Your task to perform on an android device: Show the shopping cart on walmart. Add macbook to the cart on walmart Image 0: 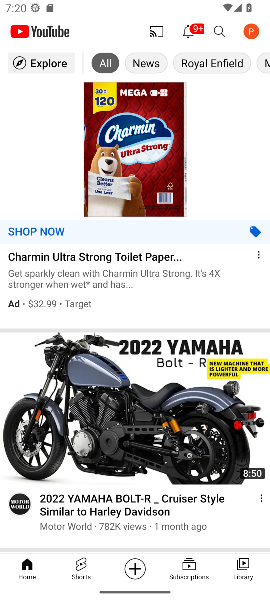
Step 0: press home button
Your task to perform on an android device: Show the shopping cart on walmart. Add macbook to the cart on walmart Image 1: 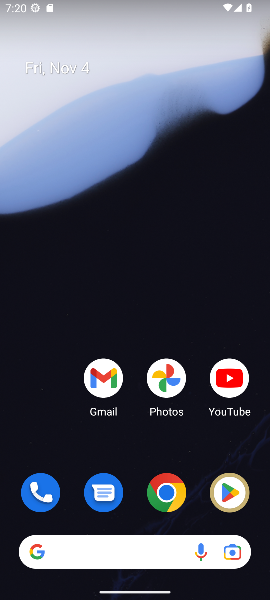
Step 1: drag from (136, 439) to (137, 57)
Your task to perform on an android device: Show the shopping cart on walmart. Add macbook to the cart on walmart Image 2: 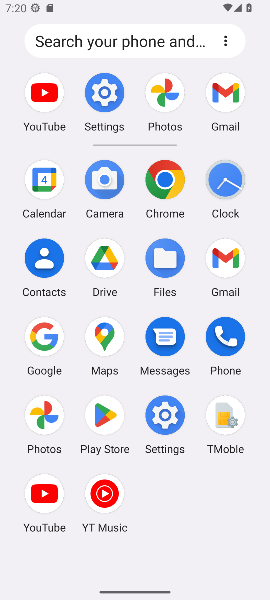
Step 2: click (162, 178)
Your task to perform on an android device: Show the shopping cart on walmart. Add macbook to the cart on walmart Image 3: 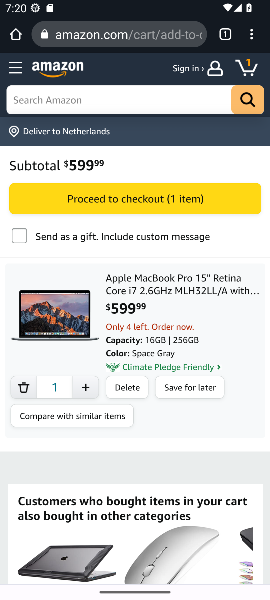
Step 3: click (136, 34)
Your task to perform on an android device: Show the shopping cart on walmart. Add macbook to the cart on walmart Image 4: 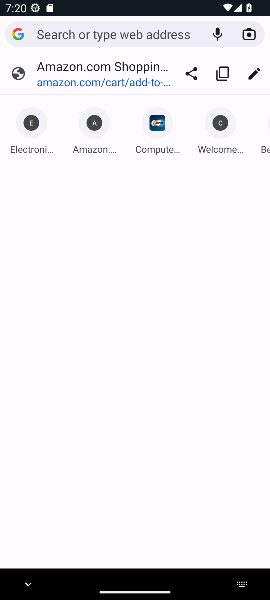
Step 4: type "walmart.com"
Your task to perform on an android device: Show the shopping cart on walmart. Add macbook to the cart on walmart Image 5: 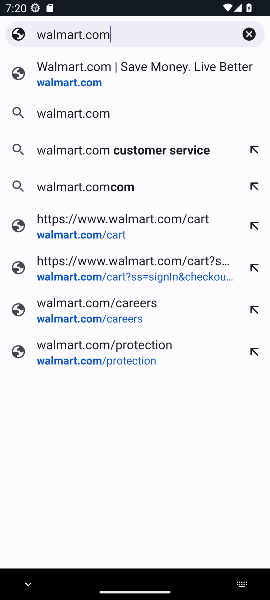
Step 5: press enter
Your task to perform on an android device: Show the shopping cart on walmart. Add macbook to the cart on walmart Image 6: 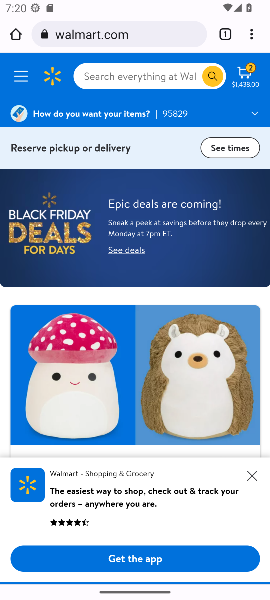
Step 6: click (248, 77)
Your task to perform on an android device: Show the shopping cart on walmart. Add macbook to the cart on walmart Image 7: 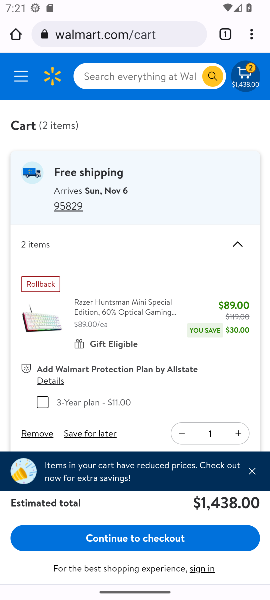
Step 7: click (32, 430)
Your task to perform on an android device: Show the shopping cart on walmart. Add macbook to the cart on walmart Image 8: 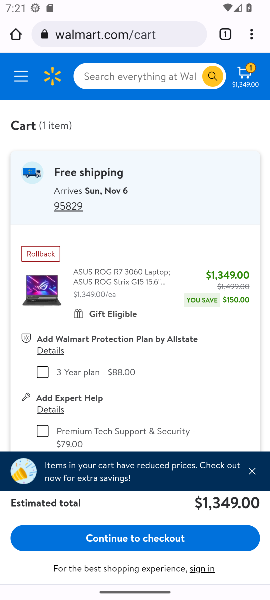
Step 8: click (144, 74)
Your task to perform on an android device: Show the shopping cart on walmart. Add macbook to the cart on walmart Image 9: 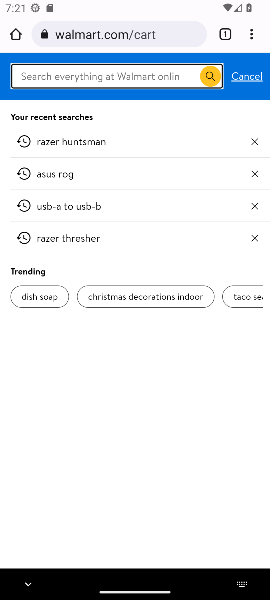
Step 9: type "macbook"
Your task to perform on an android device: Show the shopping cart on walmart. Add macbook to the cart on walmart Image 10: 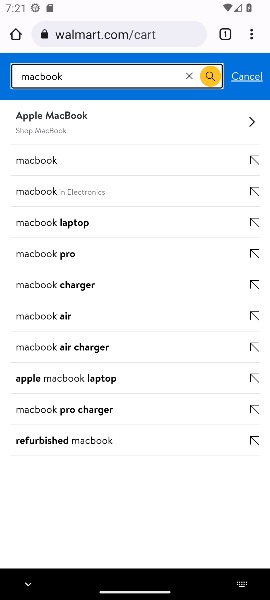
Step 10: press enter
Your task to perform on an android device: Show the shopping cart on walmart. Add macbook to the cart on walmart Image 11: 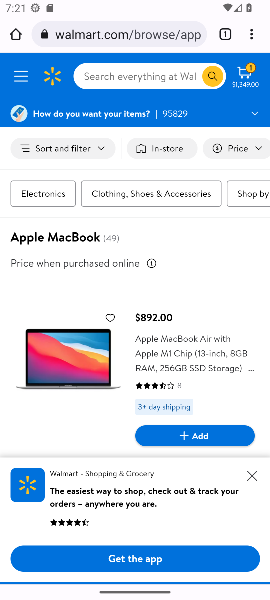
Step 11: drag from (210, 398) to (194, 228)
Your task to perform on an android device: Show the shopping cart on walmart. Add macbook to the cart on walmart Image 12: 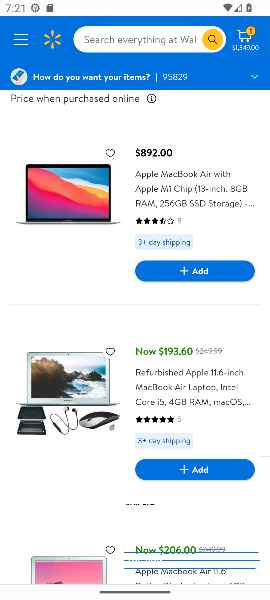
Step 12: click (207, 269)
Your task to perform on an android device: Show the shopping cart on walmart. Add macbook to the cart on walmart Image 13: 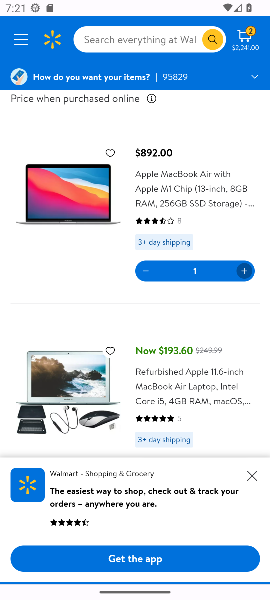
Step 13: task complete